Your task to perform on an android device: Empty the shopping cart on walmart. Search for "razer kraken" on walmart, select the first entry, add it to the cart, then select checkout. Image 0: 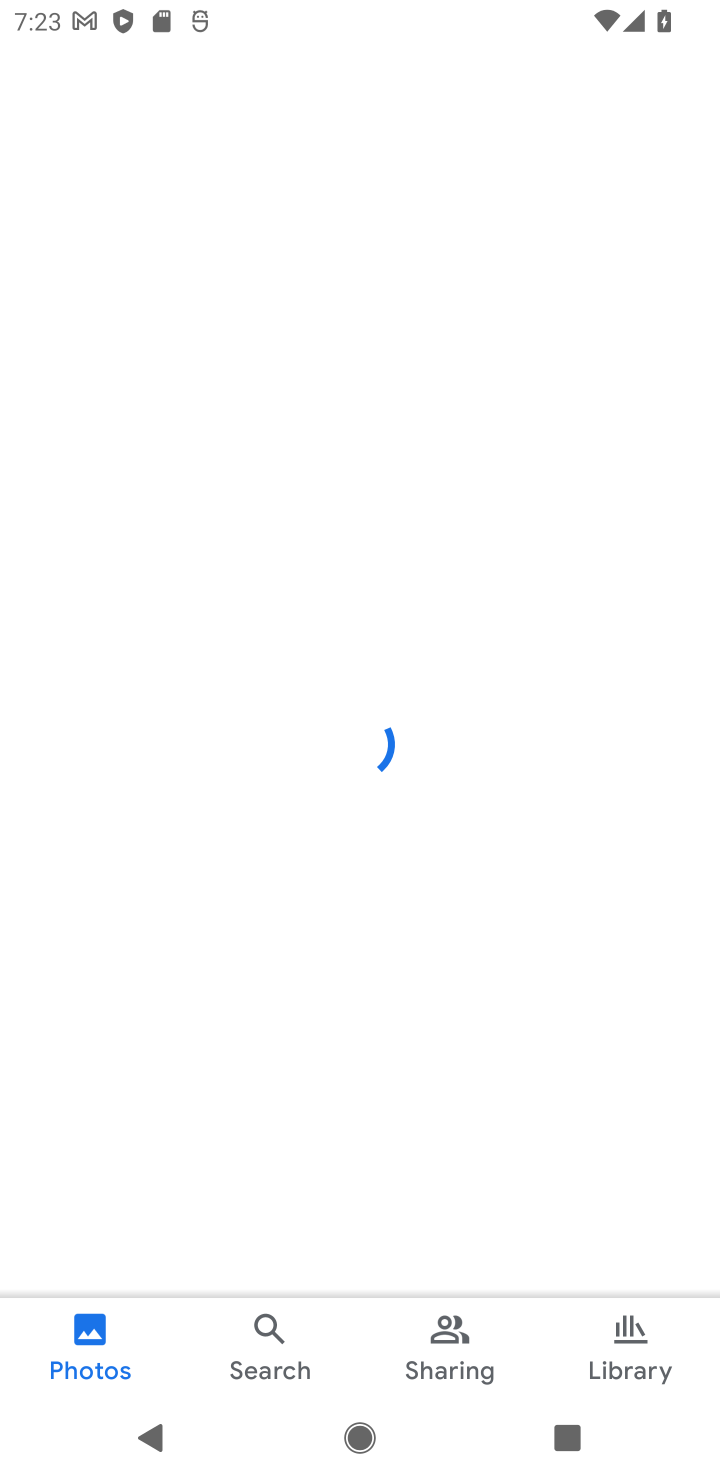
Step 0: task complete